Your task to perform on an android device: Open CNN.com Image 0: 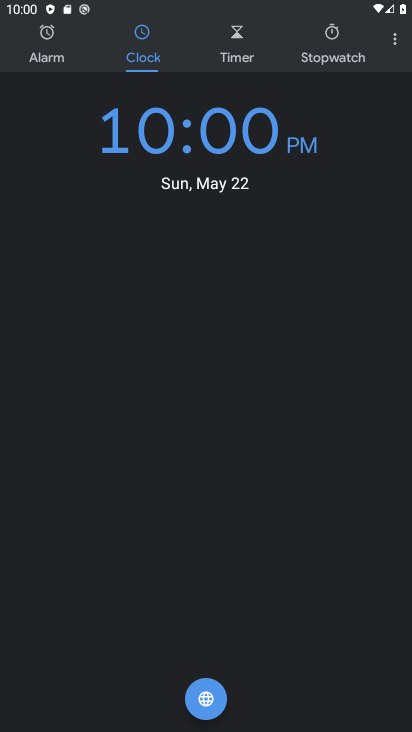
Step 0: press home button
Your task to perform on an android device: Open CNN.com Image 1: 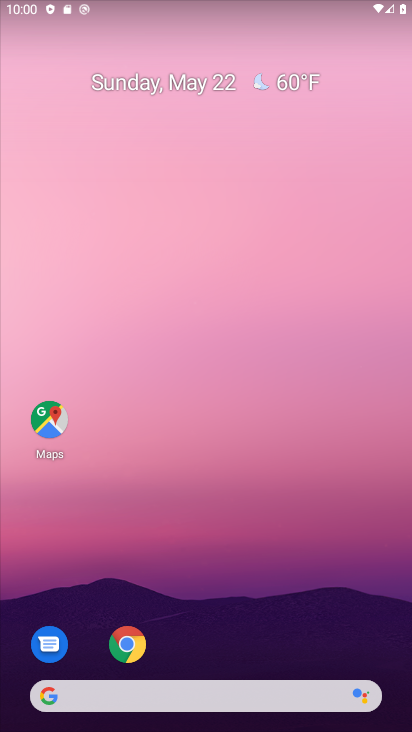
Step 1: drag from (111, 690) to (220, 258)
Your task to perform on an android device: Open CNN.com Image 2: 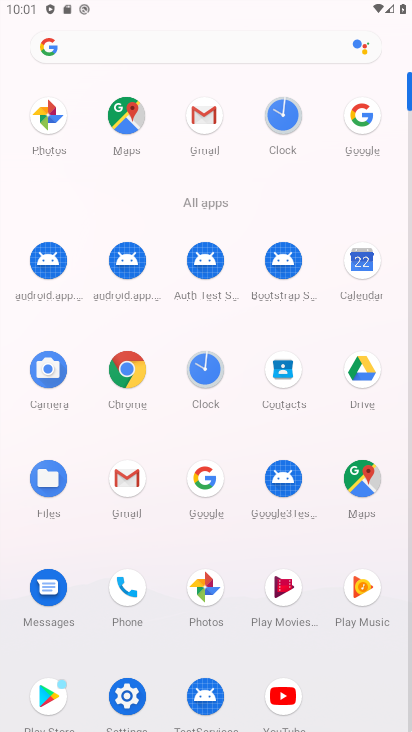
Step 2: click (203, 488)
Your task to perform on an android device: Open CNN.com Image 3: 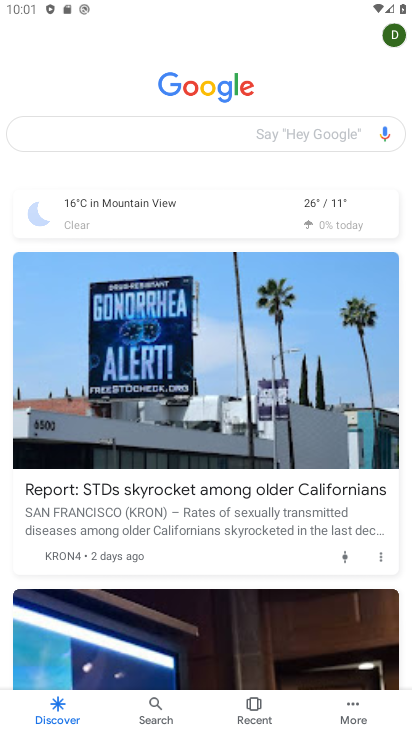
Step 3: click (117, 139)
Your task to perform on an android device: Open CNN.com Image 4: 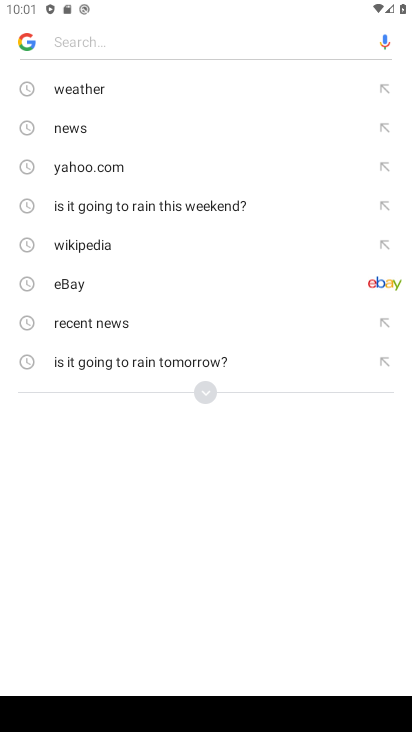
Step 4: click (210, 389)
Your task to perform on an android device: Open CNN.com Image 5: 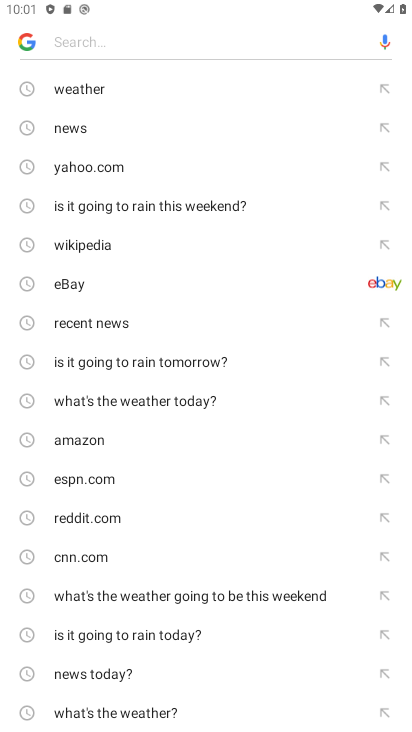
Step 5: drag from (146, 661) to (196, 432)
Your task to perform on an android device: Open CNN.com Image 6: 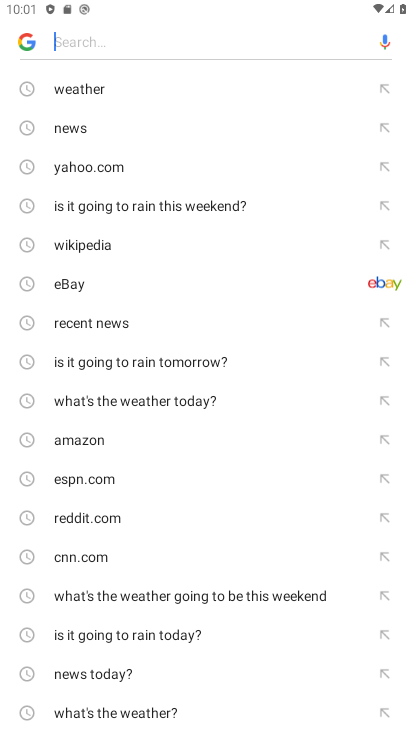
Step 6: drag from (141, 724) to (168, 663)
Your task to perform on an android device: Open CNN.com Image 7: 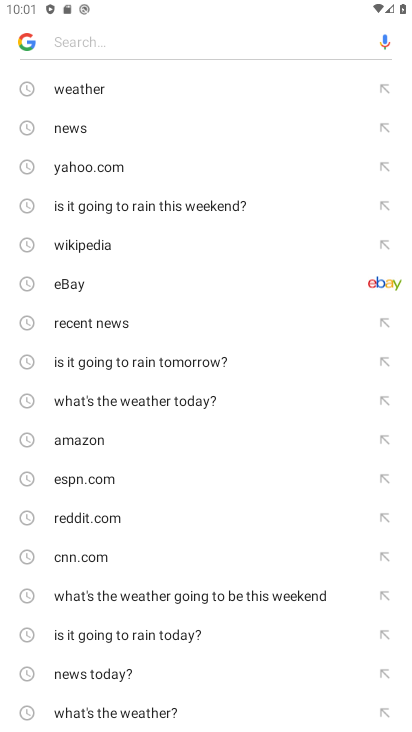
Step 7: drag from (107, 701) to (258, 289)
Your task to perform on an android device: Open CNN.com Image 8: 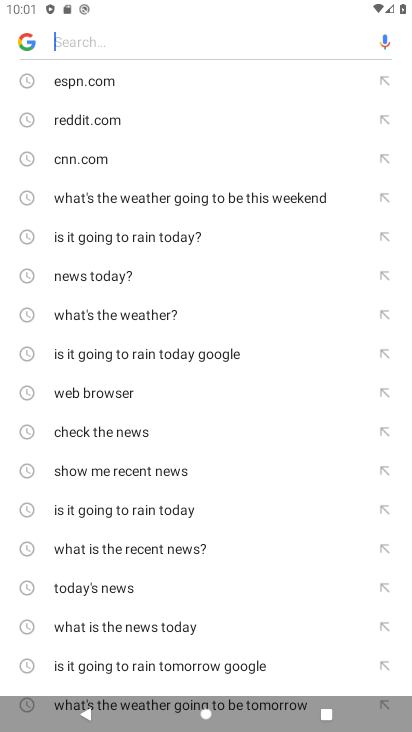
Step 8: drag from (49, 593) to (100, 247)
Your task to perform on an android device: Open CNN.com Image 9: 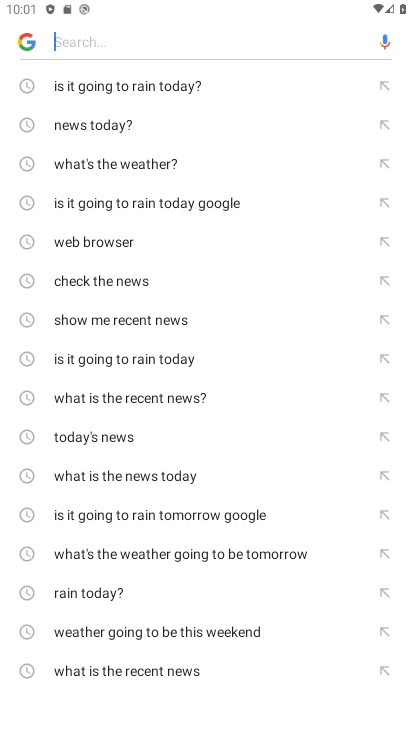
Step 9: drag from (89, 107) to (80, 417)
Your task to perform on an android device: Open CNN.com Image 10: 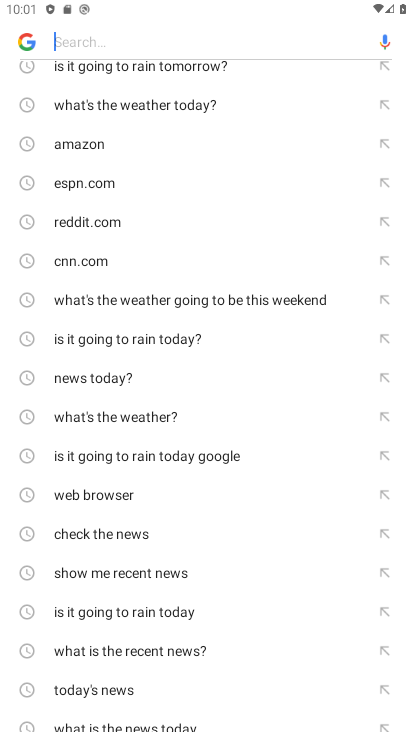
Step 10: click (89, 270)
Your task to perform on an android device: Open CNN.com Image 11: 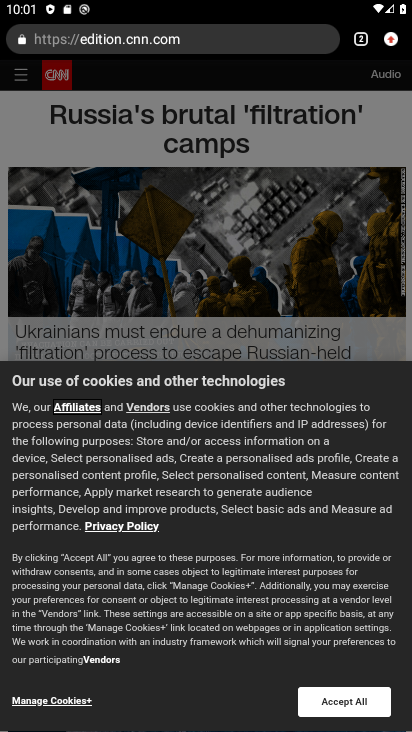
Step 11: task complete